Your task to perform on an android device: turn off improve location accuracy Image 0: 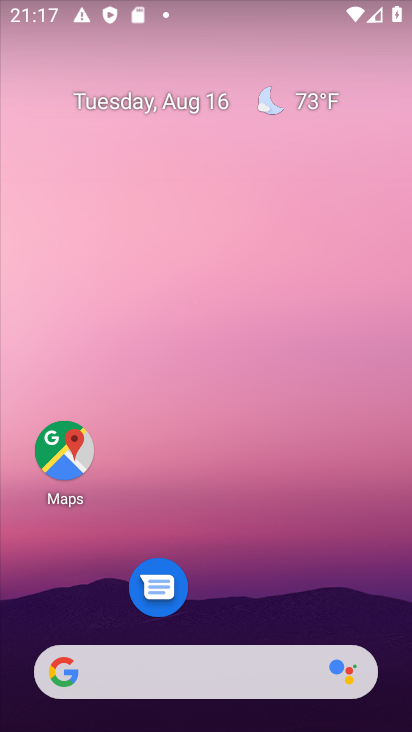
Step 0: drag from (242, 625) to (215, 123)
Your task to perform on an android device: turn off improve location accuracy Image 1: 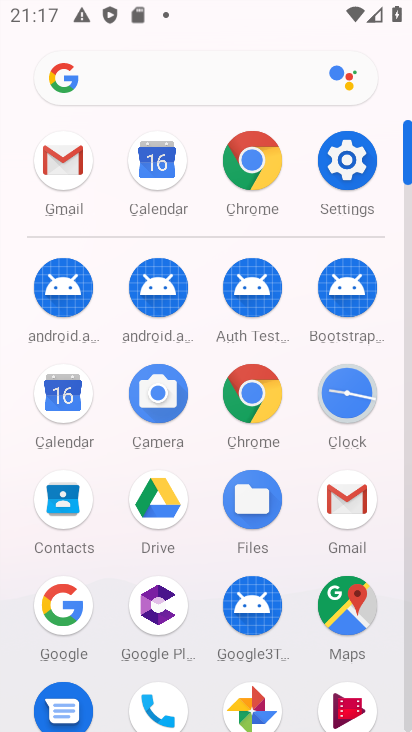
Step 1: click (343, 180)
Your task to perform on an android device: turn off improve location accuracy Image 2: 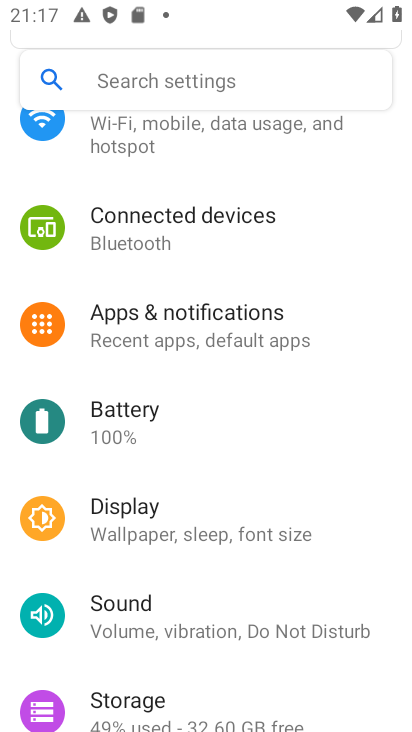
Step 2: drag from (214, 601) to (127, 157)
Your task to perform on an android device: turn off improve location accuracy Image 3: 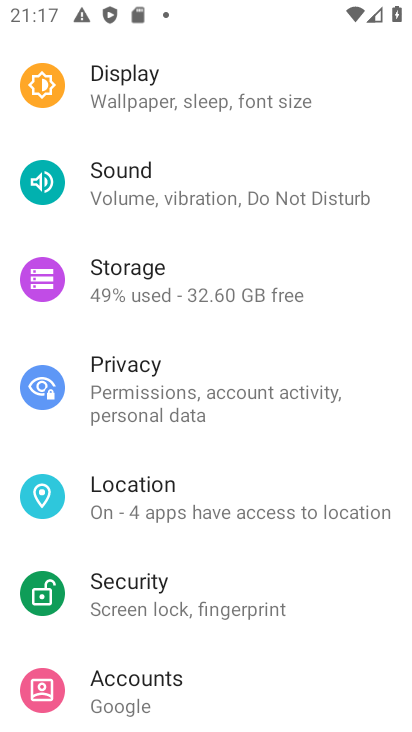
Step 3: click (80, 489)
Your task to perform on an android device: turn off improve location accuracy Image 4: 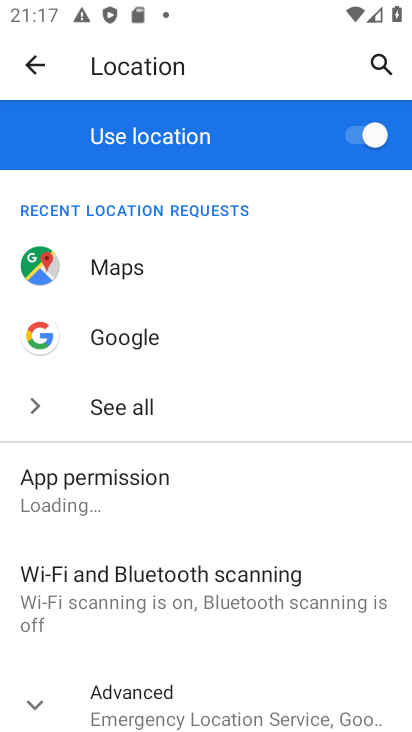
Step 4: click (221, 683)
Your task to perform on an android device: turn off improve location accuracy Image 5: 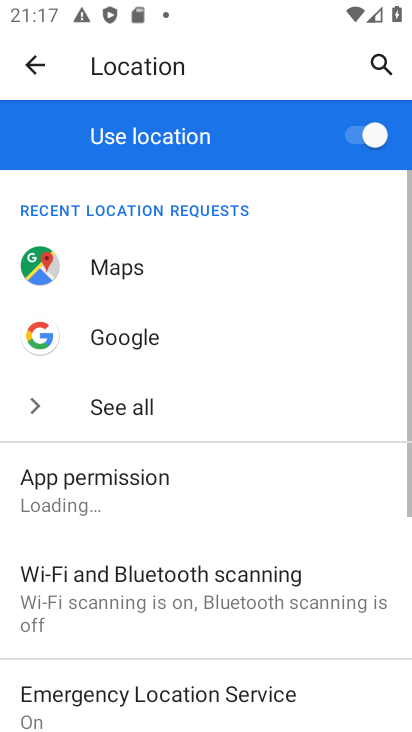
Step 5: drag from (221, 683) to (114, 256)
Your task to perform on an android device: turn off improve location accuracy Image 6: 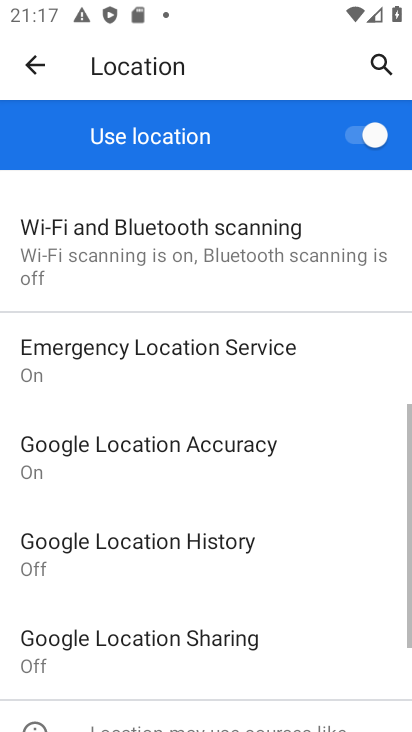
Step 6: click (140, 479)
Your task to perform on an android device: turn off improve location accuracy Image 7: 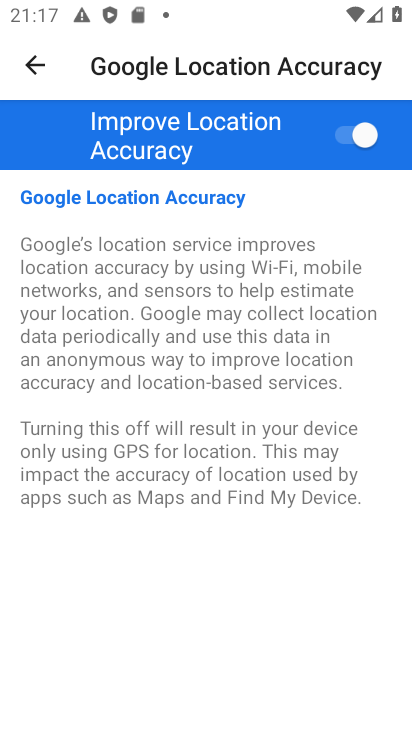
Step 7: click (341, 142)
Your task to perform on an android device: turn off improve location accuracy Image 8: 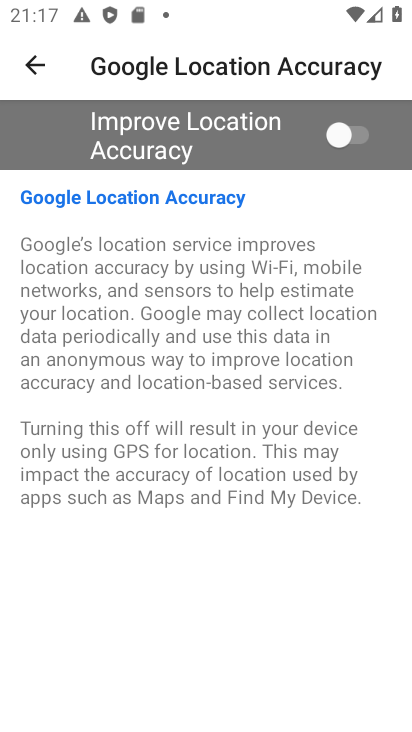
Step 8: task complete